Your task to perform on an android device: open chrome privacy settings Image 0: 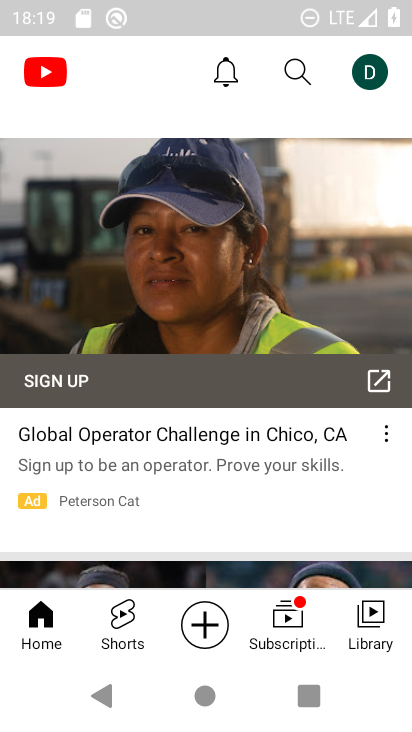
Step 0: press home button
Your task to perform on an android device: open chrome privacy settings Image 1: 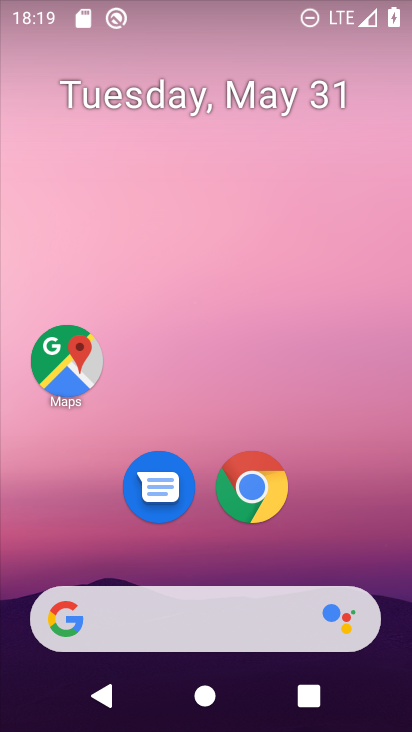
Step 1: click (249, 485)
Your task to perform on an android device: open chrome privacy settings Image 2: 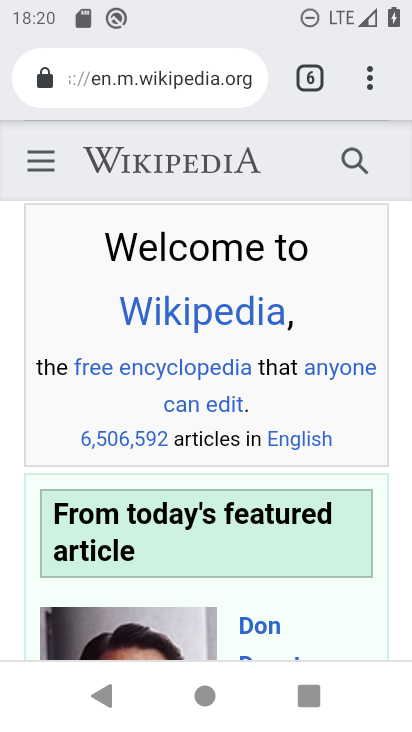
Step 2: click (372, 74)
Your task to perform on an android device: open chrome privacy settings Image 3: 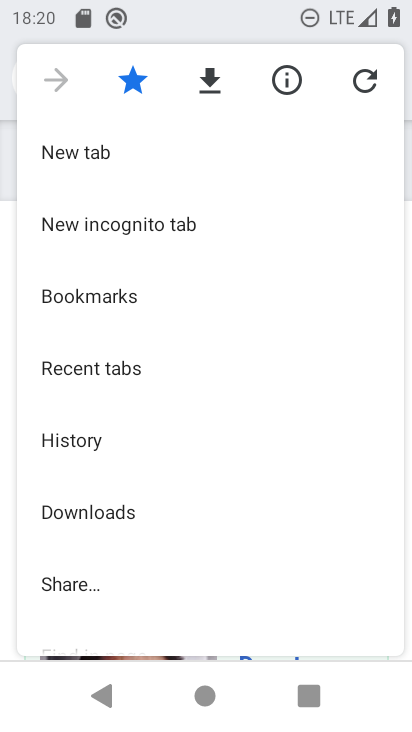
Step 3: drag from (232, 508) to (231, 268)
Your task to perform on an android device: open chrome privacy settings Image 4: 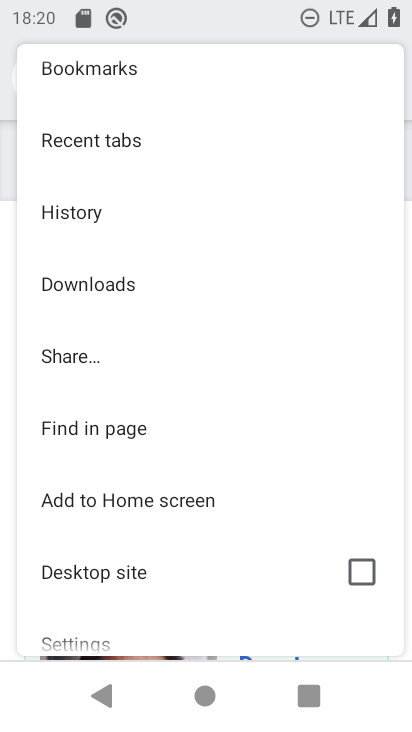
Step 4: drag from (198, 389) to (191, 61)
Your task to perform on an android device: open chrome privacy settings Image 5: 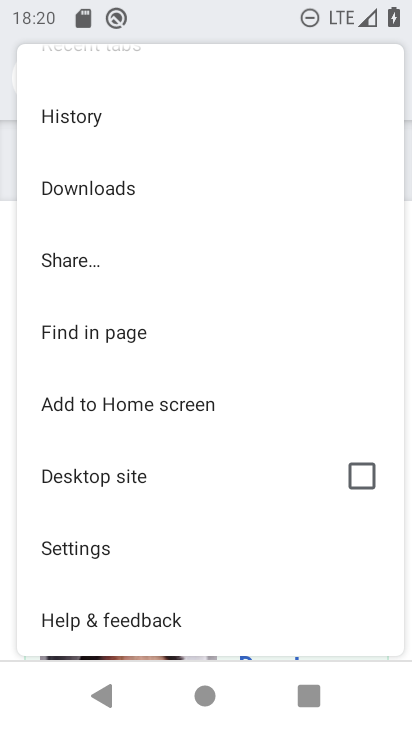
Step 5: click (91, 552)
Your task to perform on an android device: open chrome privacy settings Image 6: 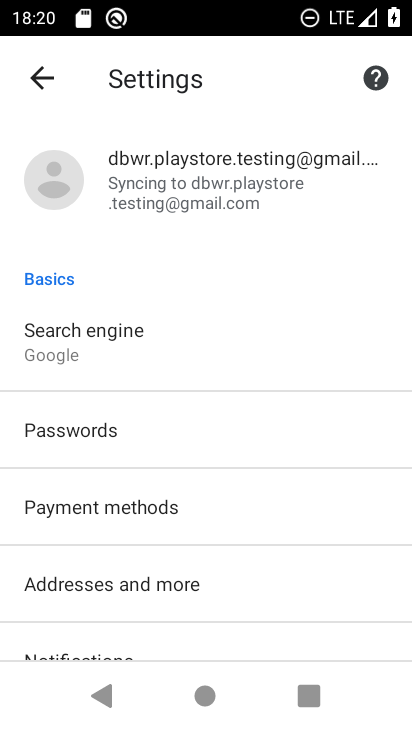
Step 6: drag from (244, 539) to (185, 254)
Your task to perform on an android device: open chrome privacy settings Image 7: 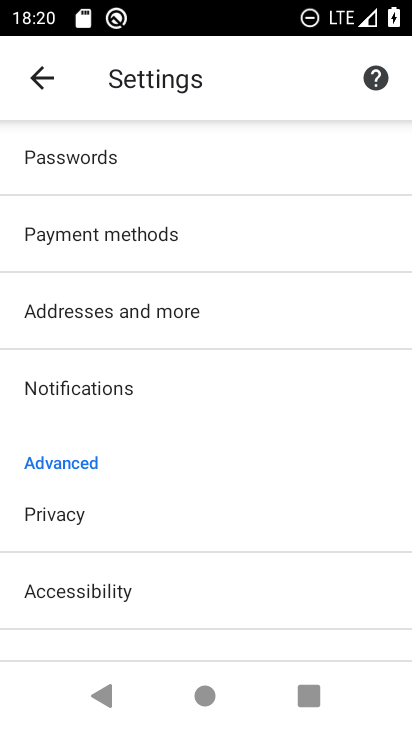
Step 7: click (58, 516)
Your task to perform on an android device: open chrome privacy settings Image 8: 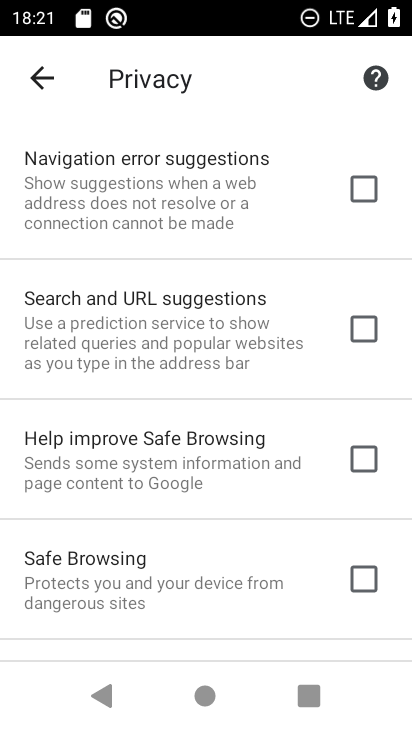
Step 8: task complete